Your task to perform on an android device: turn on data saver in the chrome app Image 0: 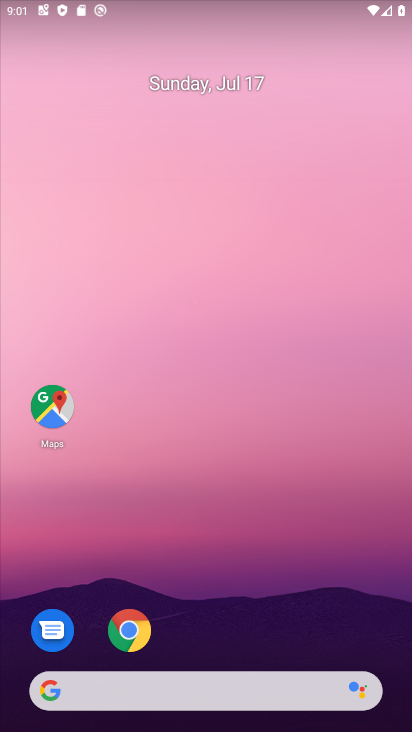
Step 0: drag from (336, 629) to (367, 67)
Your task to perform on an android device: turn on data saver in the chrome app Image 1: 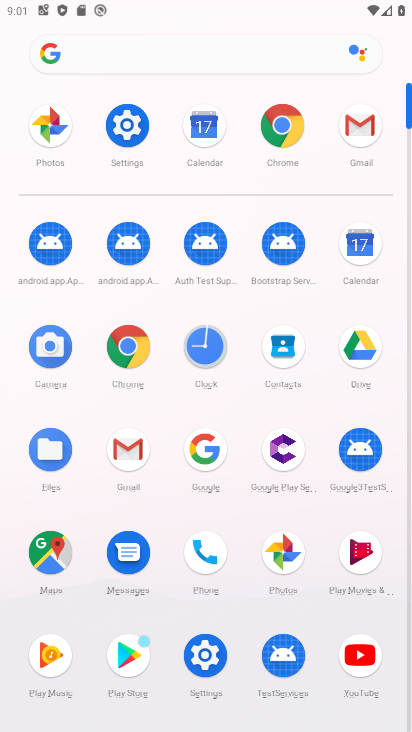
Step 1: click (134, 345)
Your task to perform on an android device: turn on data saver in the chrome app Image 2: 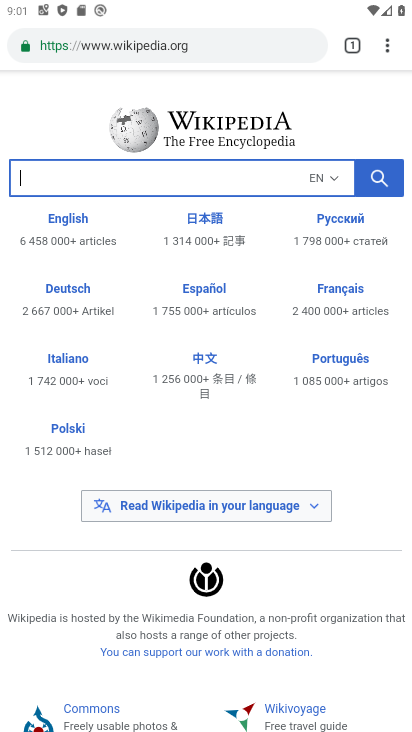
Step 2: click (386, 46)
Your task to perform on an android device: turn on data saver in the chrome app Image 3: 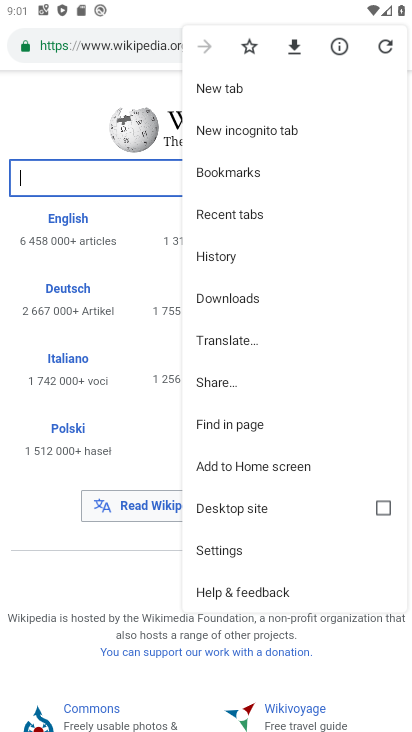
Step 3: click (249, 558)
Your task to perform on an android device: turn on data saver in the chrome app Image 4: 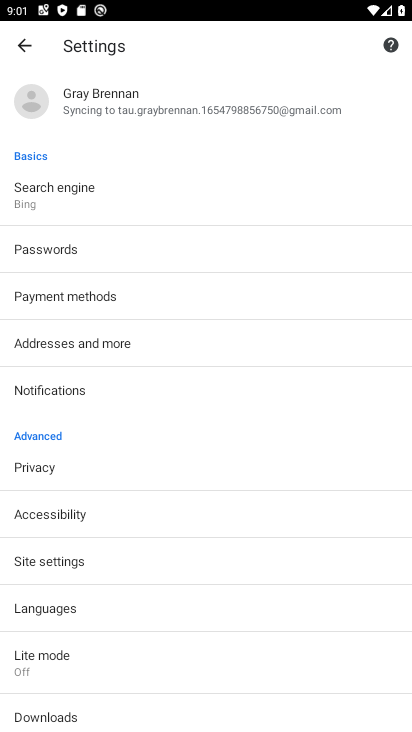
Step 4: drag from (229, 629) to (245, 541)
Your task to perform on an android device: turn on data saver in the chrome app Image 5: 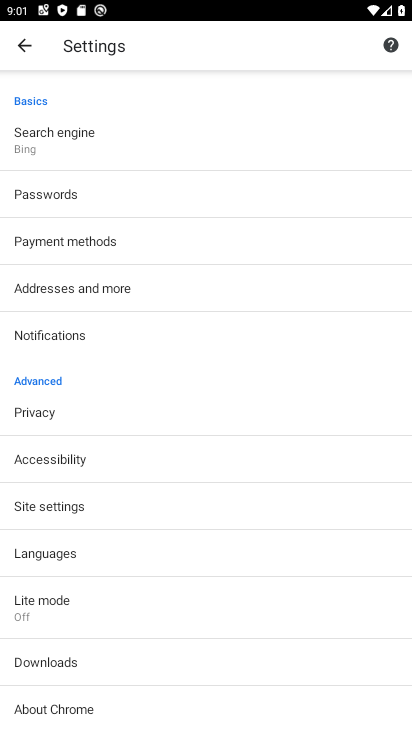
Step 5: click (246, 598)
Your task to perform on an android device: turn on data saver in the chrome app Image 6: 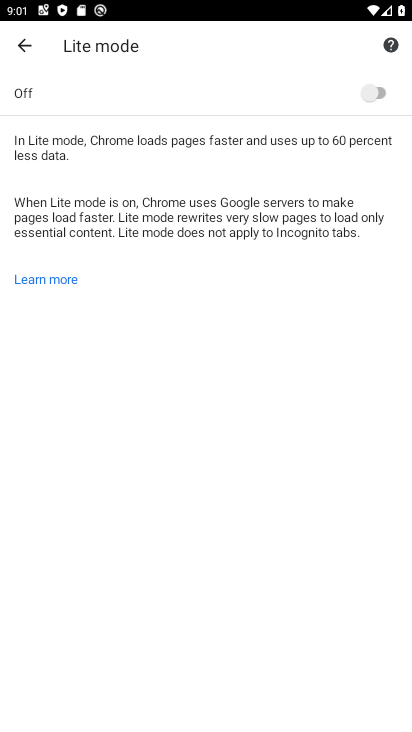
Step 6: click (367, 101)
Your task to perform on an android device: turn on data saver in the chrome app Image 7: 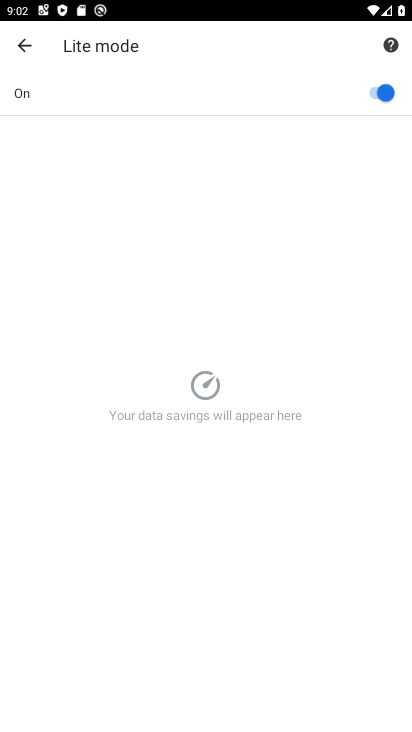
Step 7: task complete